Your task to perform on an android device: add a contact in the contacts app Image 0: 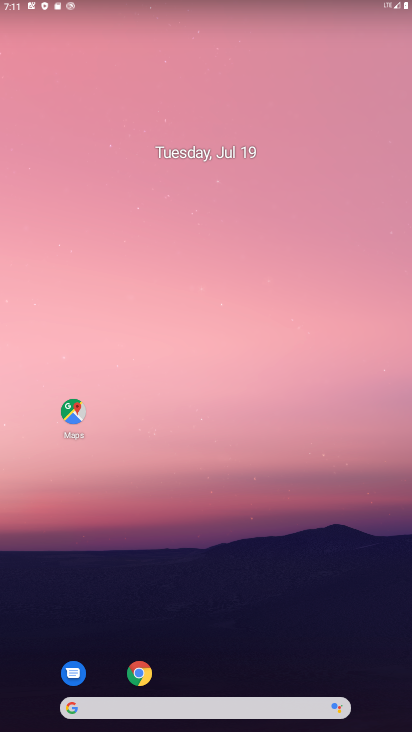
Step 0: drag from (384, 684) to (283, 0)
Your task to perform on an android device: add a contact in the contacts app Image 1: 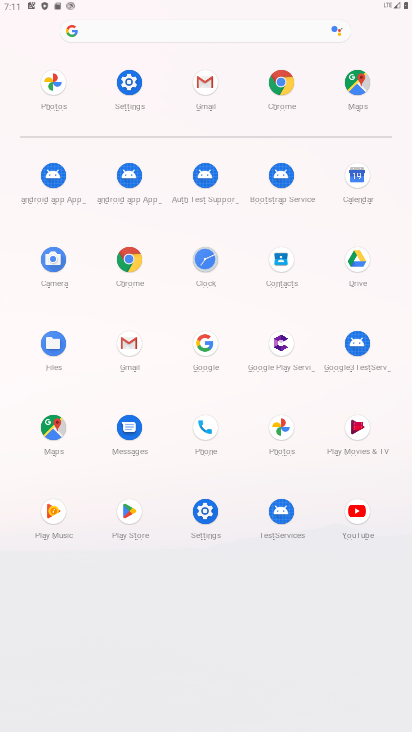
Step 1: click (278, 262)
Your task to perform on an android device: add a contact in the contacts app Image 2: 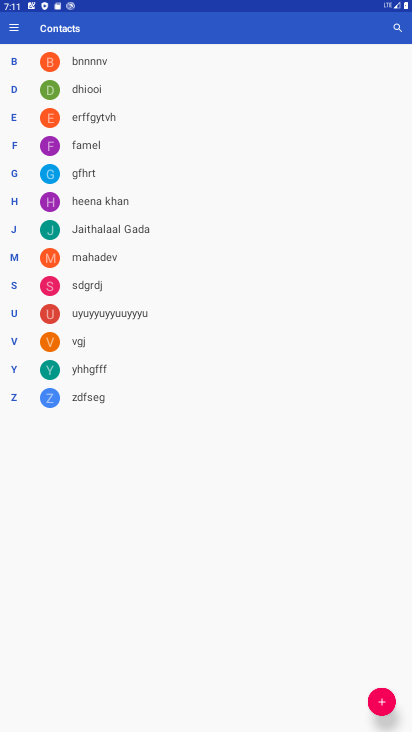
Step 2: click (382, 705)
Your task to perform on an android device: add a contact in the contacts app Image 3: 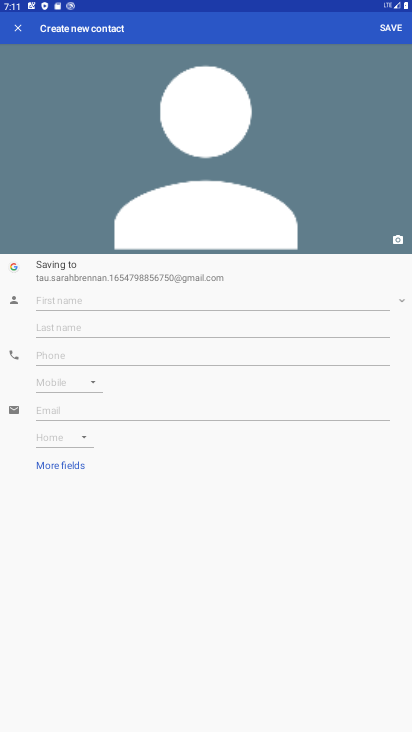
Step 3: type "madhavi"
Your task to perform on an android device: add a contact in the contacts app Image 4: 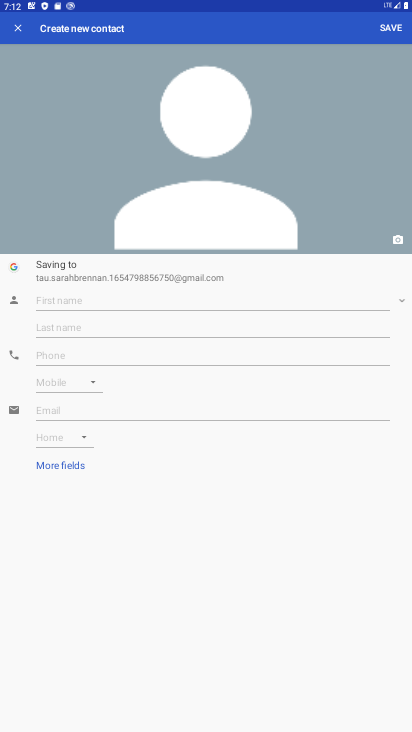
Step 4: click (63, 299)
Your task to perform on an android device: add a contact in the contacts app Image 5: 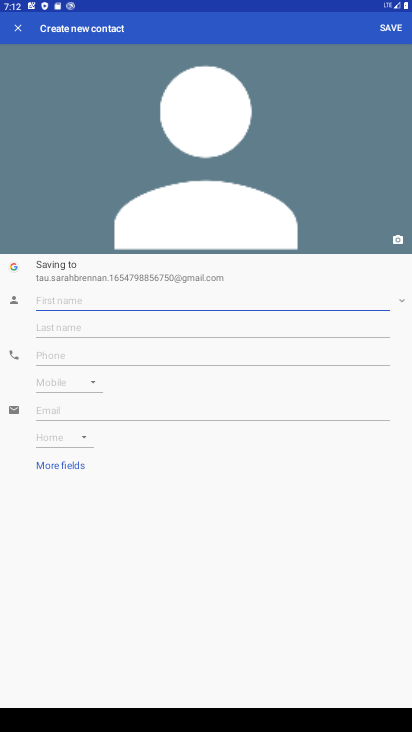
Step 5: type "madhavi"
Your task to perform on an android device: add a contact in the contacts app Image 6: 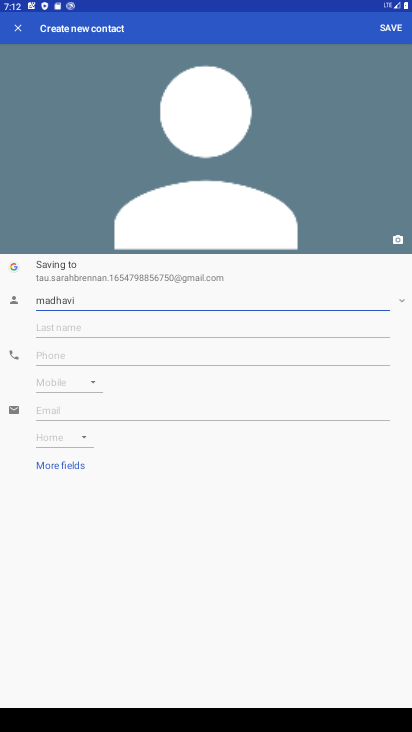
Step 6: click (388, 34)
Your task to perform on an android device: add a contact in the contacts app Image 7: 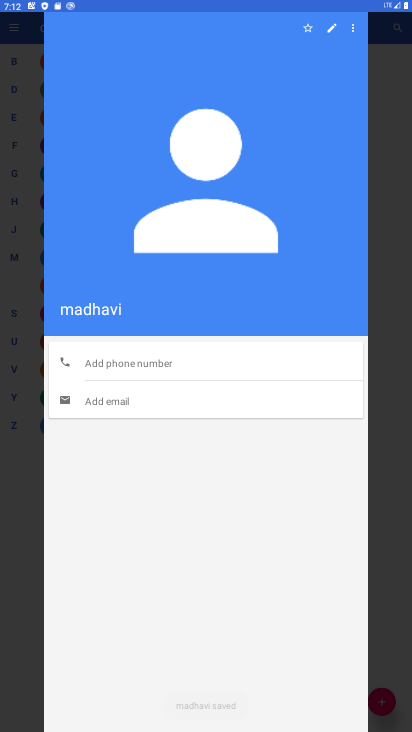
Step 7: task complete